Your task to perform on an android device: change keyboard looks Image 0: 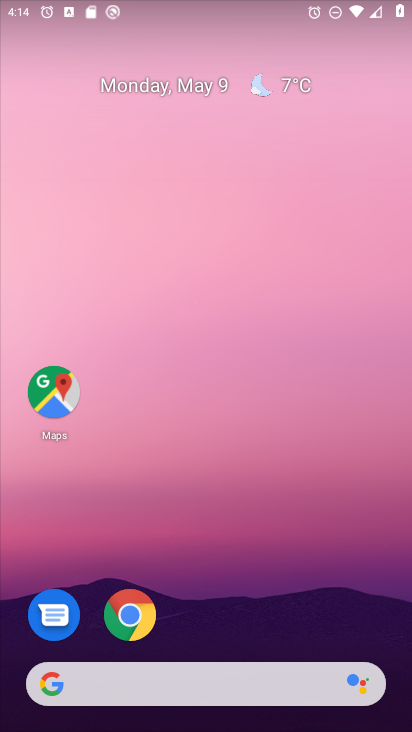
Step 0: drag from (371, 628) to (338, 145)
Your task to perform on an android device: change keyboard looks Image 1: 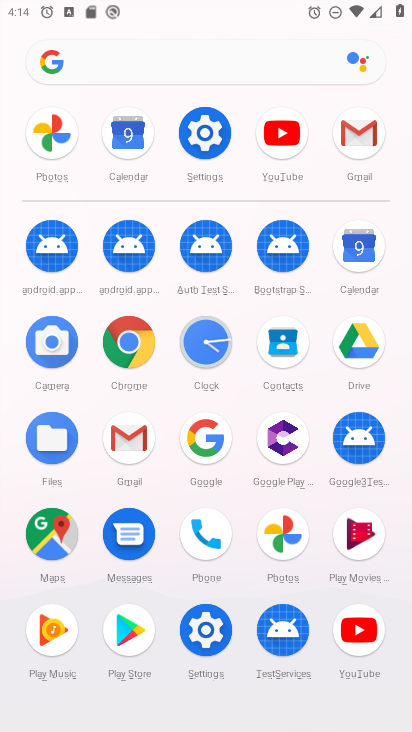
Step 1: click (204, 628)
Your task to perform on an android device: change keyboard looks Image 2: 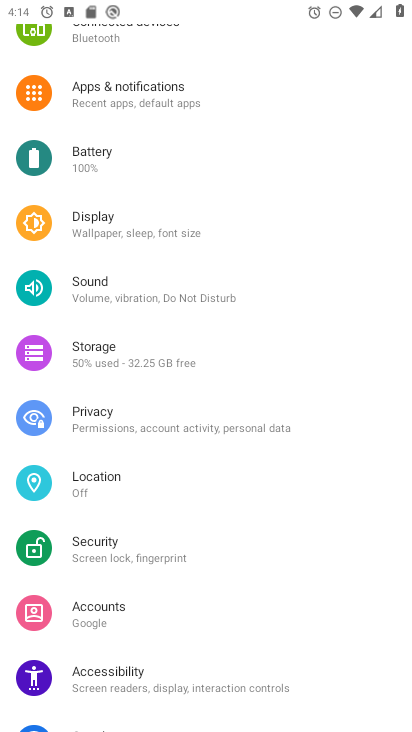
Step 2: drag from (221, 654) to (237, 245)
Your task to perform on an android device: change keyboard looks Image 3: 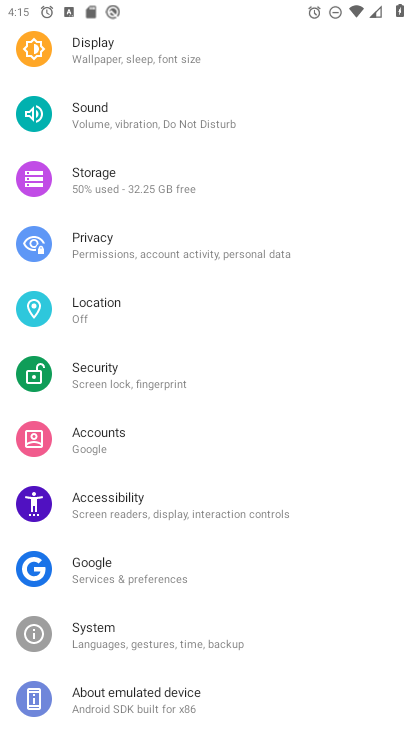
Step 3: click (82, 637)
Your task to perform on an android device: change keyboard looks Image 4: 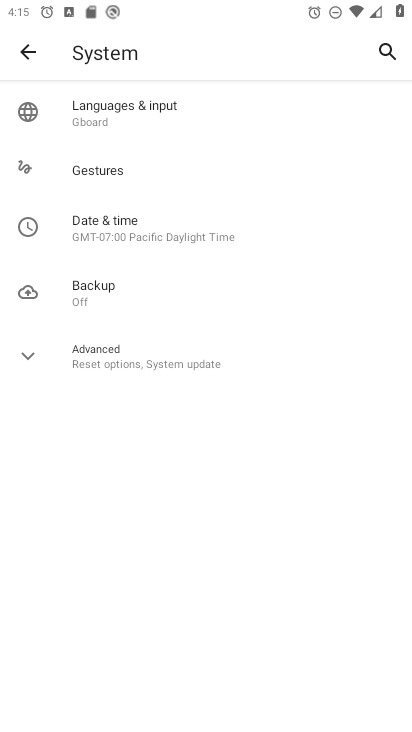
Step 4: click (89, 102)
Your task to perform on an android device: change keyboard looks Image 5: 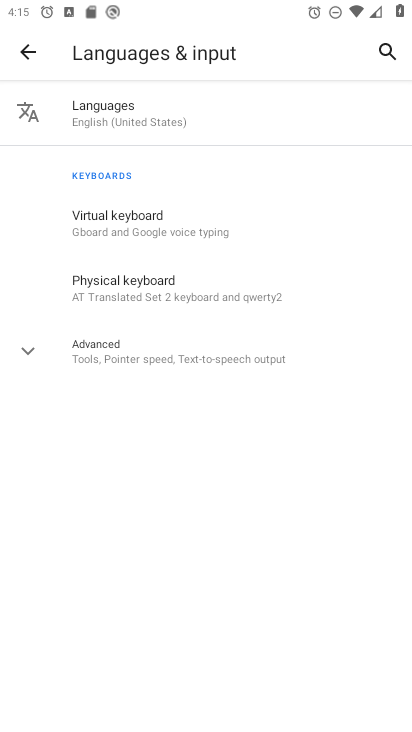
Step 5: click (104, 281)
Your task to perform on an android device: change keyboard looks Image 6: 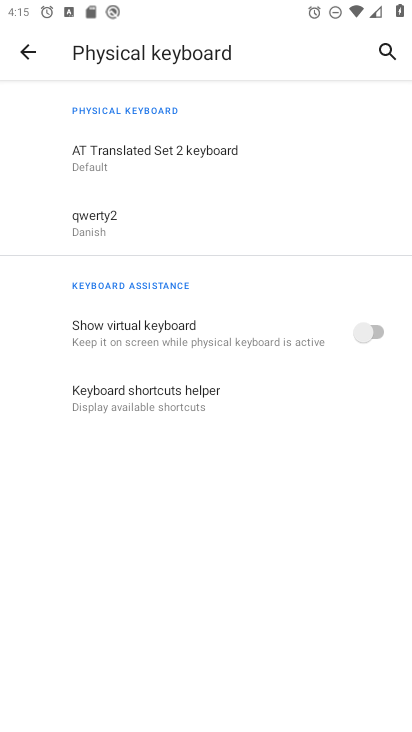
Step 6: click (90, 223)
Your task to perform on an android device: change keyboard looks Image 7: 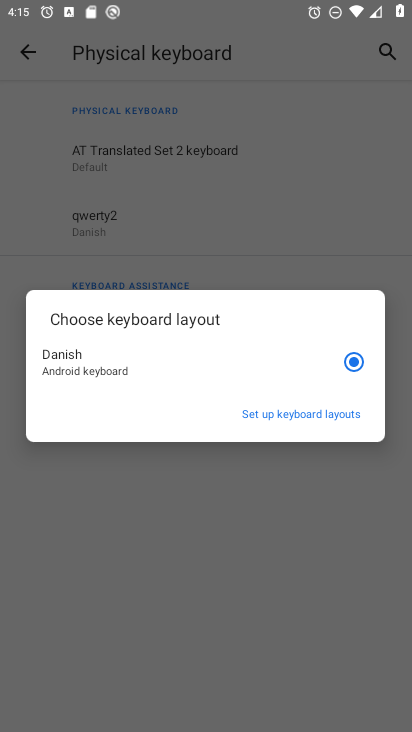
Step 7: click (285, 415)
Your task to perform on an android device: change keyboard looks Image 8: 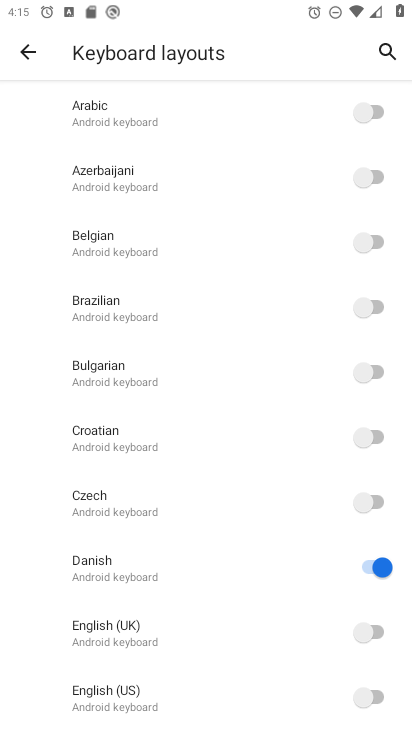
Step 8: drag from (253, 658) to (215, 254)
Your task to perform on an android device: change keyboard looks Image 9: 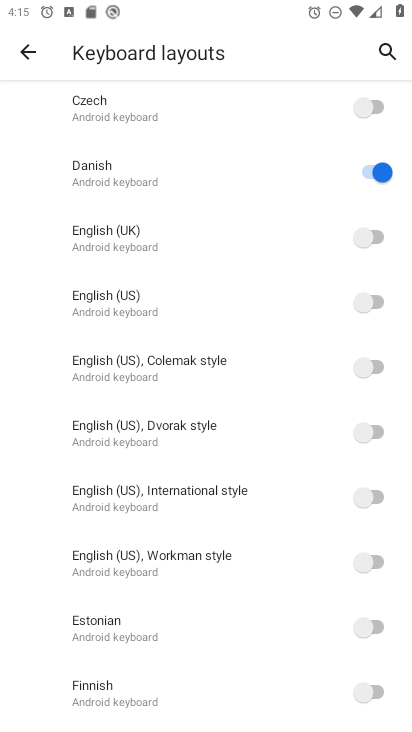
Step 9: click (370, 496)
Your task to perform on an android device: change keyboard looks Image 10: 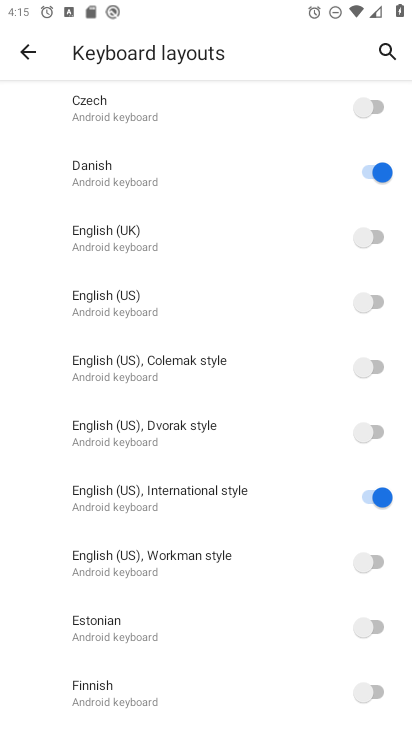
Step 10: task complete